Your task to perform on an android device: Open Reddit.com Image 0: 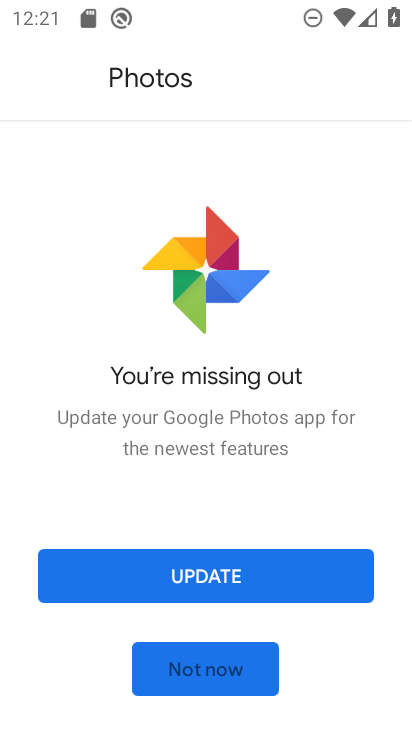
Step 0: press home button
Your task to perform on an android device: Open Reddit.com Image 1: 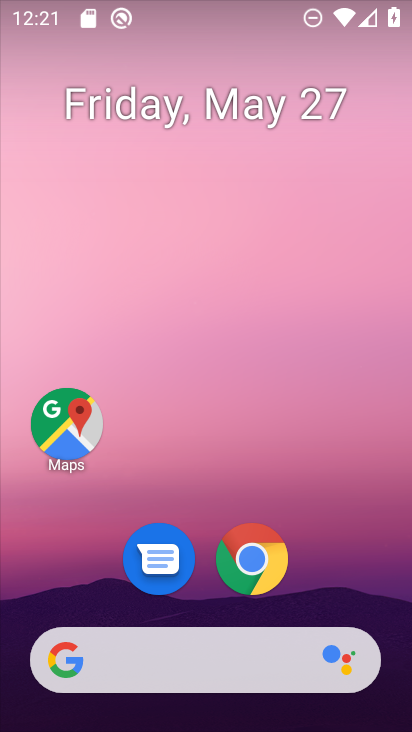
Step 1: click (269, 557)
Your task to perform on an android device: Open Reddit.com Image 2: 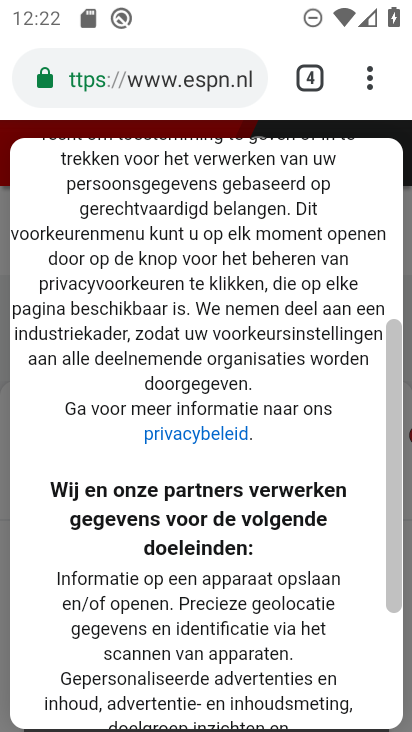
Step 2: click (220, 74)
Your task to perform on an android device: Open Reddit.com Image 3: 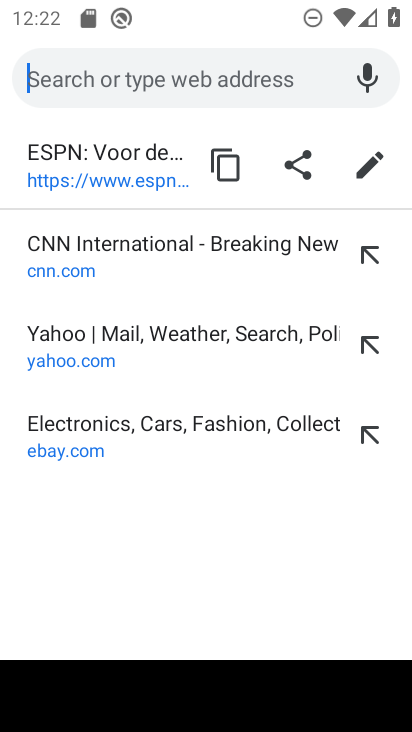
Step 3: type "reddit.com"
Your task to perform on an android device: Open Reddit.com Image 4: 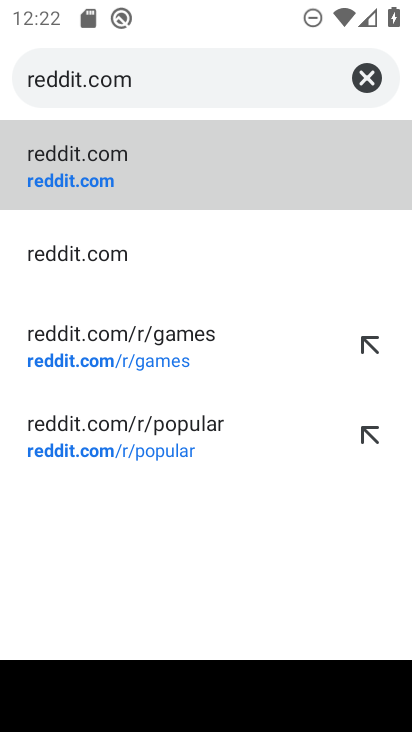
Step 4: click (141, 127)
Your task to perform on an android device: Open Reddit.com Image 5: 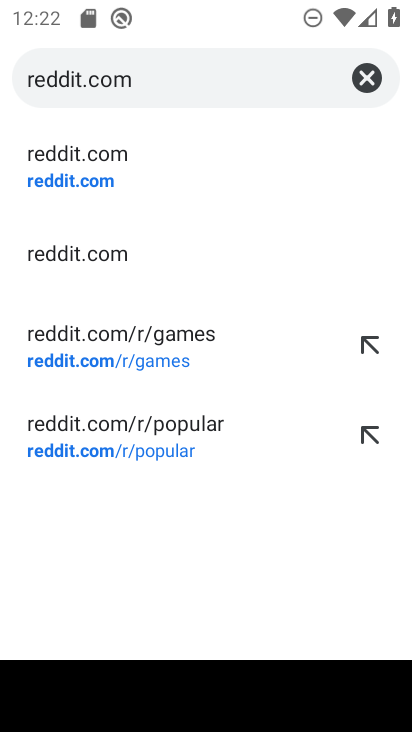
Step 5: click (128, 176)
Your task to perform on an android device: Open Reddit.com Image 6: 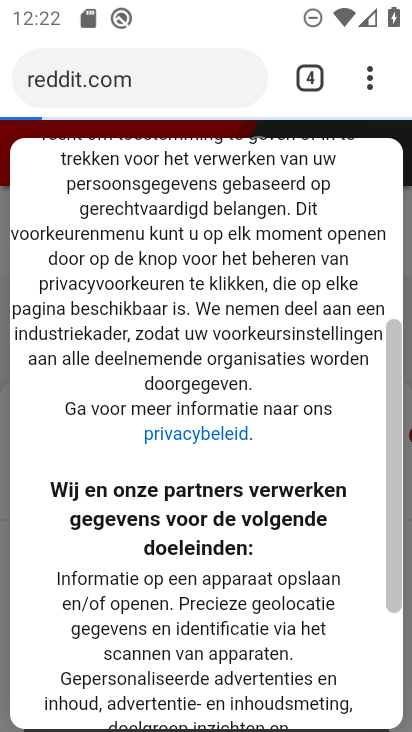
Step 6: click (128, 176)
Your task to perform on an android device: Open Reddit.com Image 7: 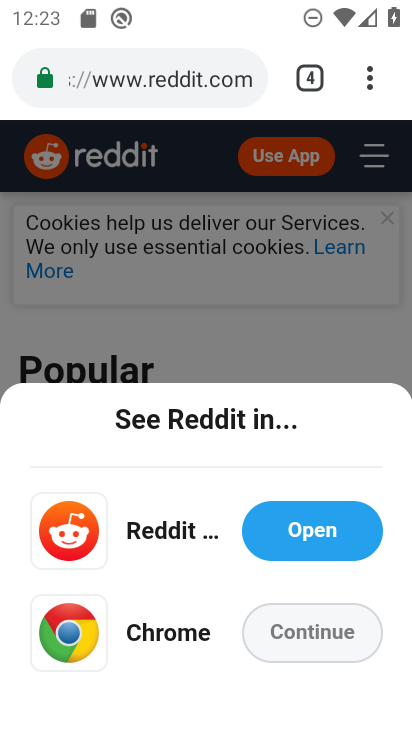
Step 7: click (169, 370)
Your task to perform on an android device: Open Reddit.com Image 8: 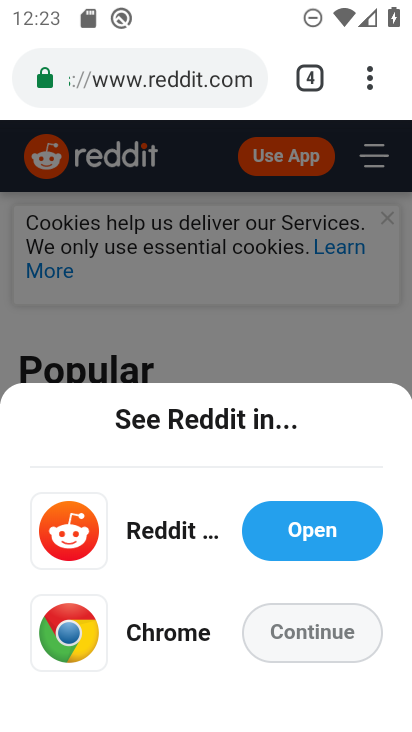
Step 8: task complete